Your task to perform on an android device: find photos in the google photos app Image 0: 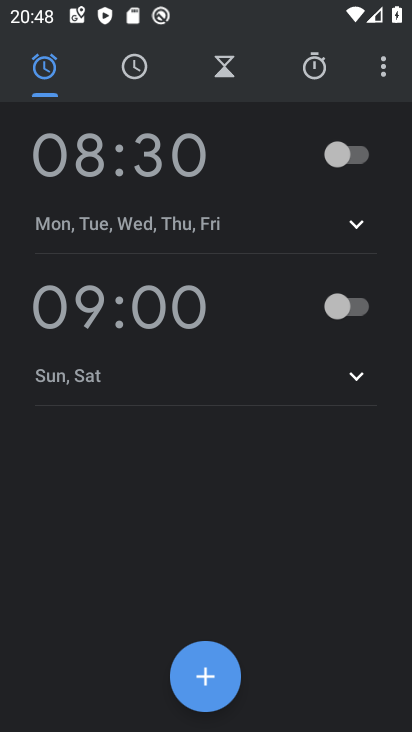
Step 0: press home button
Your task to perform on an android device: find photos in the google photos app Image 1: 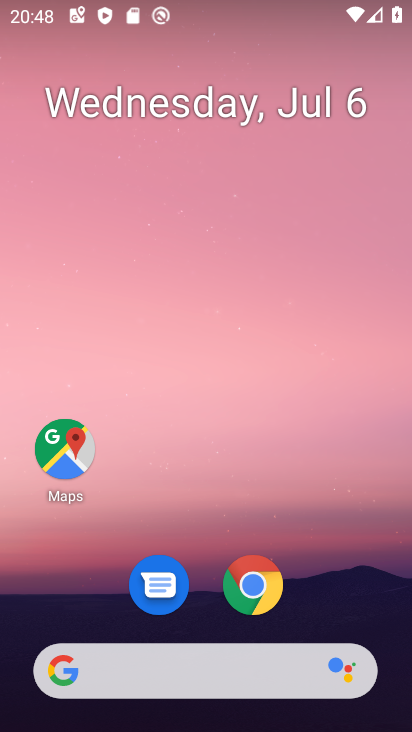
Step 1: drag from (216, 515) to (214, 8)
Your task to perform on an android device: find photos in the google photos app Image 2: 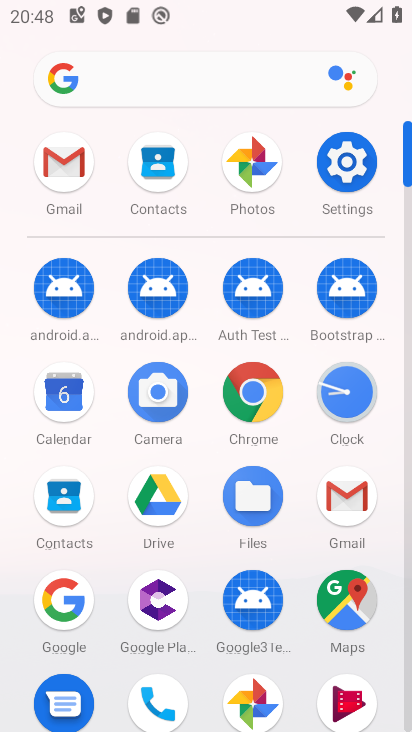
Step 2: click (241, 151)
Your task to perform on an android device: find photos in the google photos app Image 3: 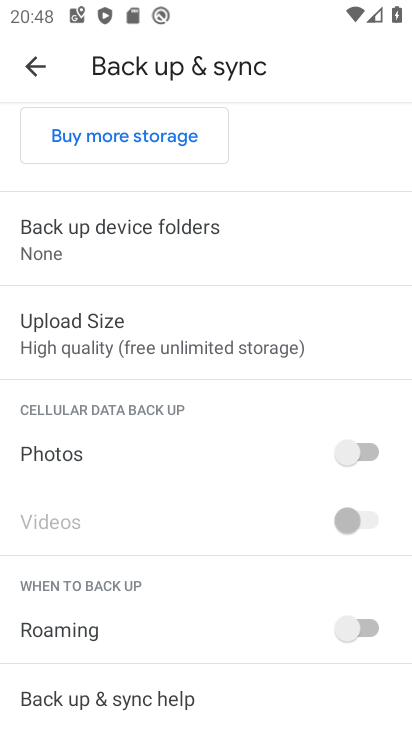
Step 3: click (36, 61)
Your task to perform on an android device: find photos in the google photos app Image 4: 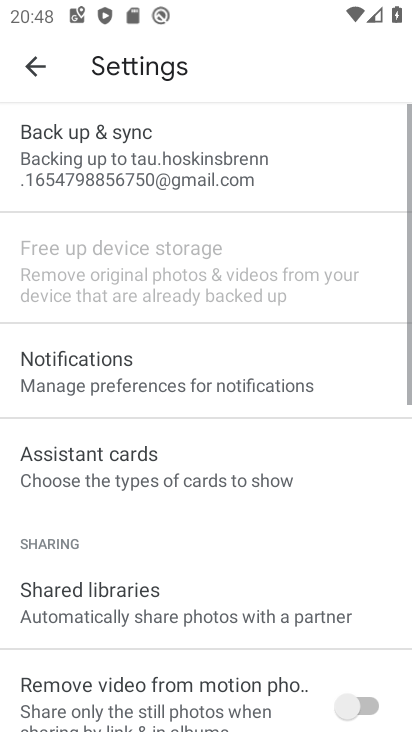
Step 4: click (37, 65)
Your task to perform on an android device: find photos in the google photos app Image 5: 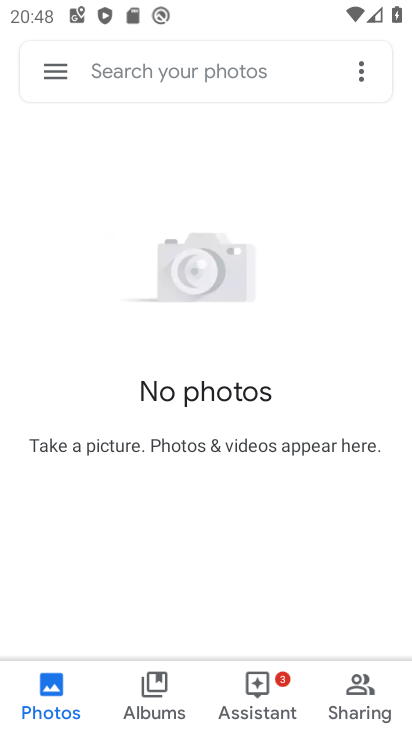
Step 5: task complete